Your task to perform on an android device: open sync settings in chrome Image 0: 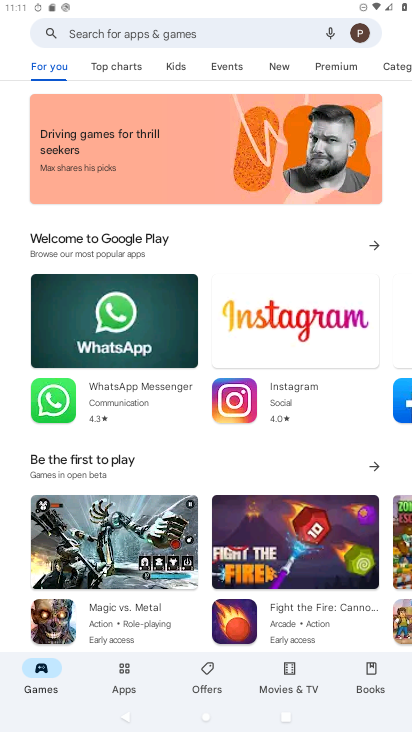
Step 0: press home button
Your task to perform on an android device: open sync settings in chrome Image 1: 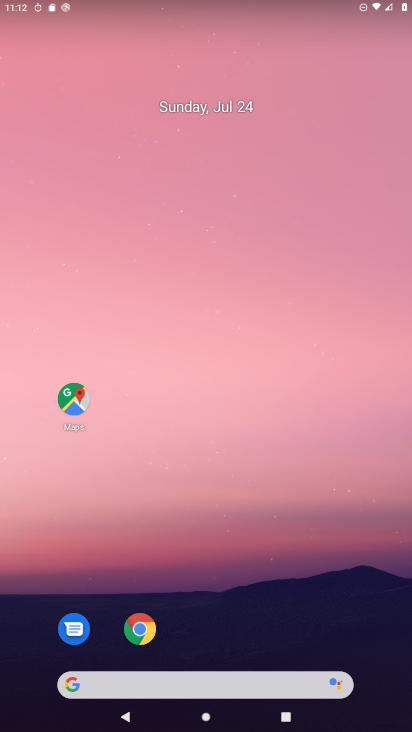
Step 1: drag from (248, 655) to (316, 82)
Your task to perform on an android device: open sync settings in chrome Image 2: 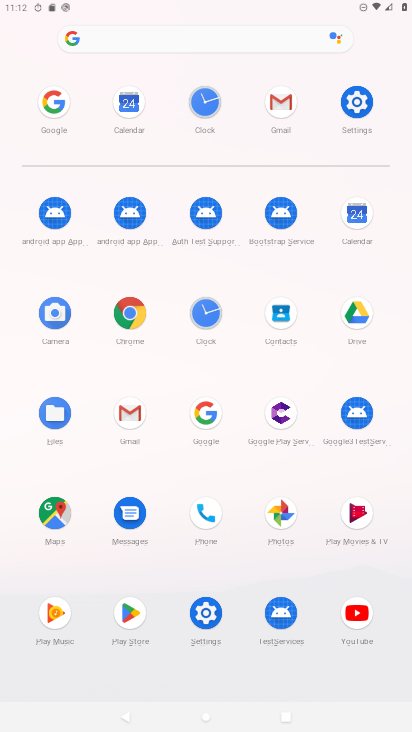
Step 2: click (122, 310)
Your task to perform on an android device: open sync settings in chrome Image 3: 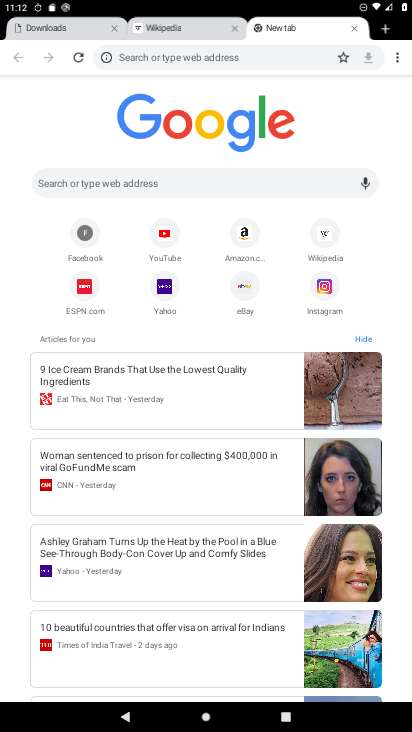
Step 3: click (397, 61)
Your task to perform on an android device: open sync settings in chrome Image 4: 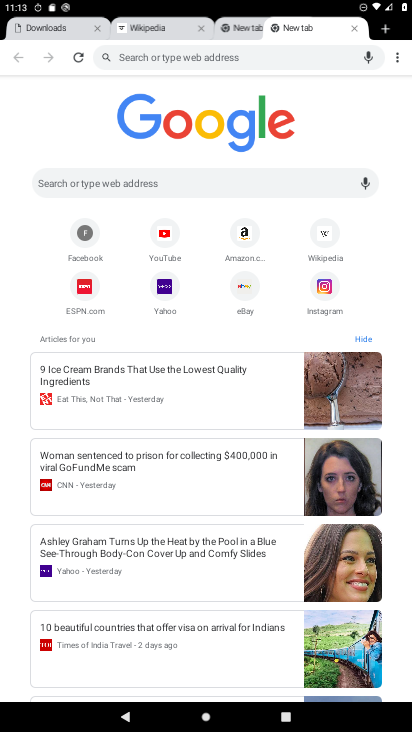
Step 4: click (397, 58)
Your task to perform on an android device: open sync settings in chrome Image 5: 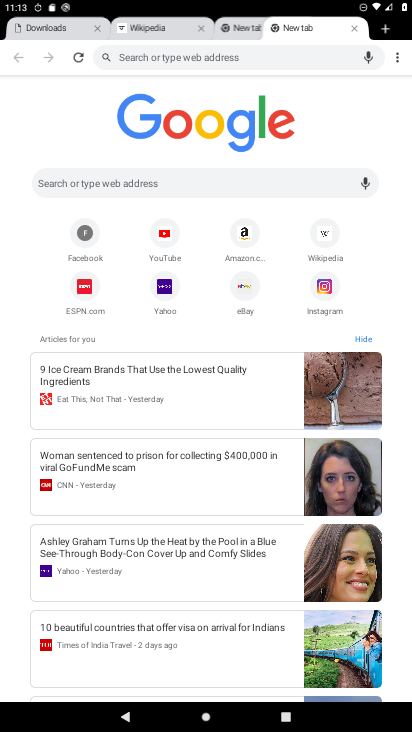
Step 5: click (390, 59)
Your task to perform on an android device: open sync settings in chrome Image 6: 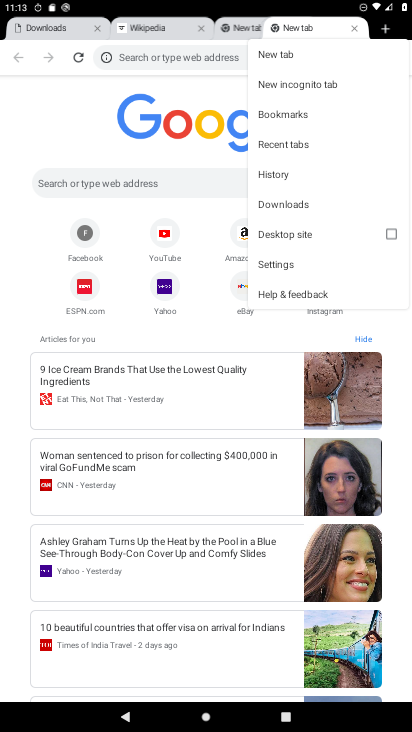
Step 6: click (297, 275)
Your task to perform on an android device: open sync settings in chrome Image 7: 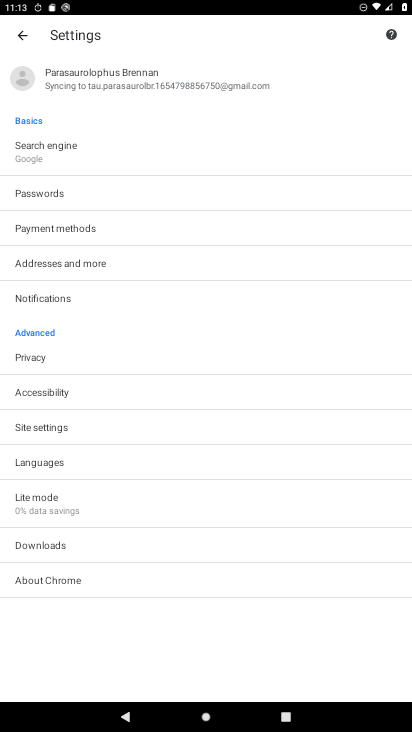
Step 7: drag from (65, 156) to (100, 55)
Your task to perform on an android device: open sync settings in chrome Image 8: 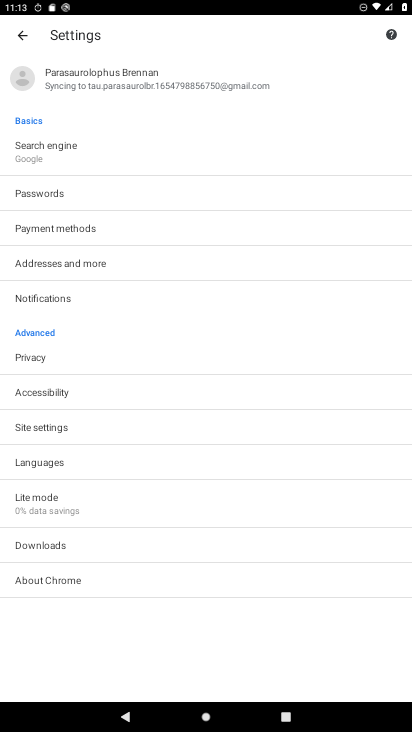
Step 8: click (105, 93)
Your task to perform on an android device: open sync settings in chrome Image 9: 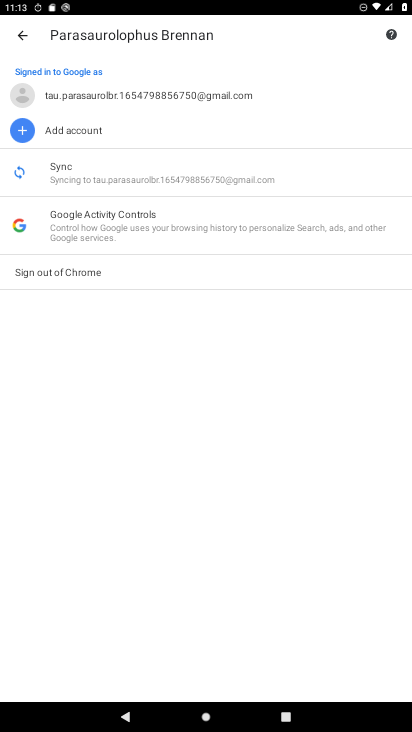
Step 9: click (91, 178)
Your task to perform on an android device: open sync settings in chrome Image 10: 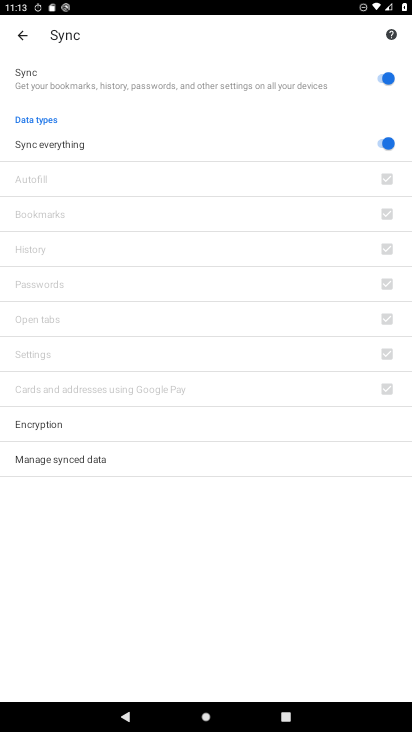
Step 10: task complete